Your task to perform on an android device: Play the last video I watched on Youtube Image 0: 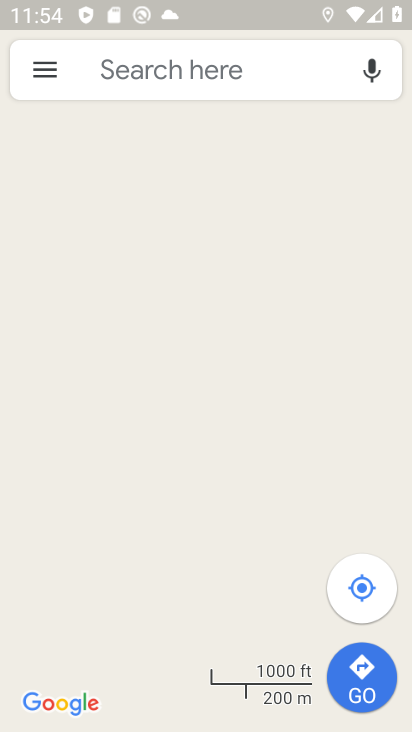
Step 0: press home button
Your task to perform on an android device: Play the last video I watched on Youtube Image 1: 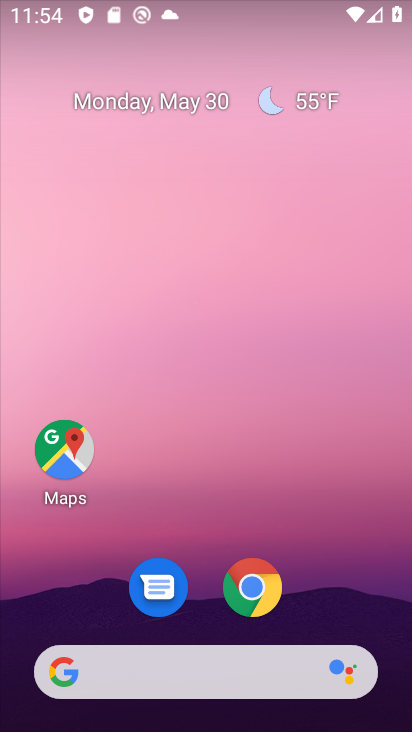
Step 1: drag from (296, 585) to (235, 173)
Your task to perform on an android device: Play the last video I watched on Youtube Image 2: 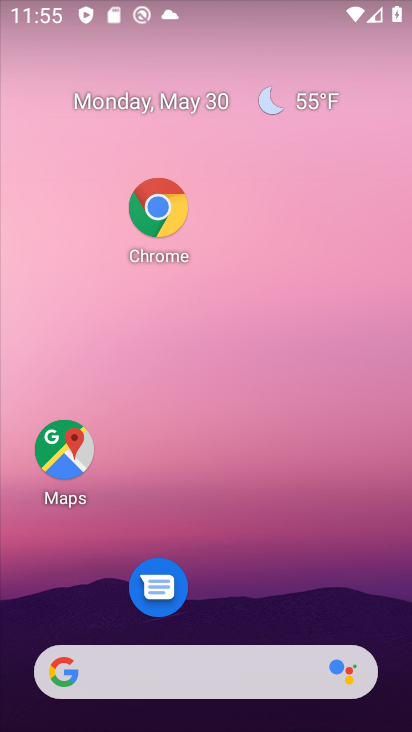
Step 2: drag from (304, 588) to (305, 181)
Your task to perform on an android device: Play the last video I watched on Youtube Image 3: 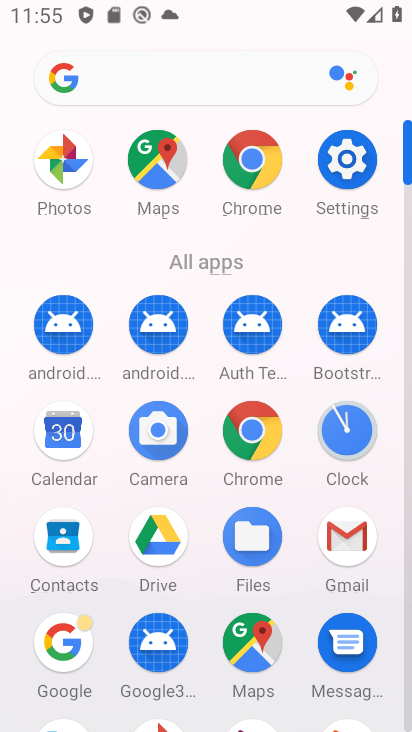
Step 3: click (410, 139)
Your task to perform on an android device: Play the last video I watched on Youtube Image 4: 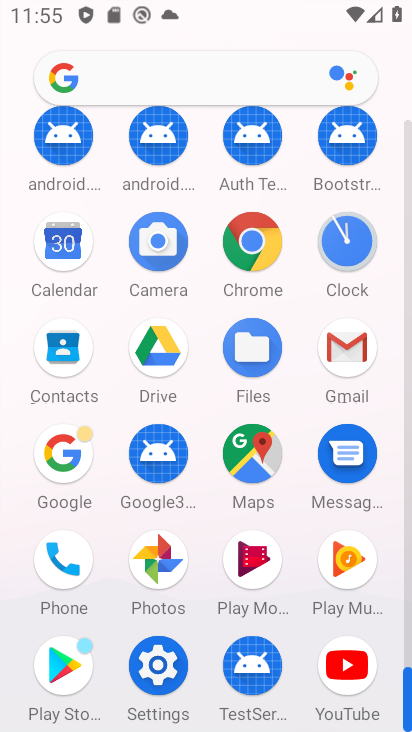
Step 4: click (359, 658)
Your task to perform on an android device: Play the last video I watched on Youtube Image 5: 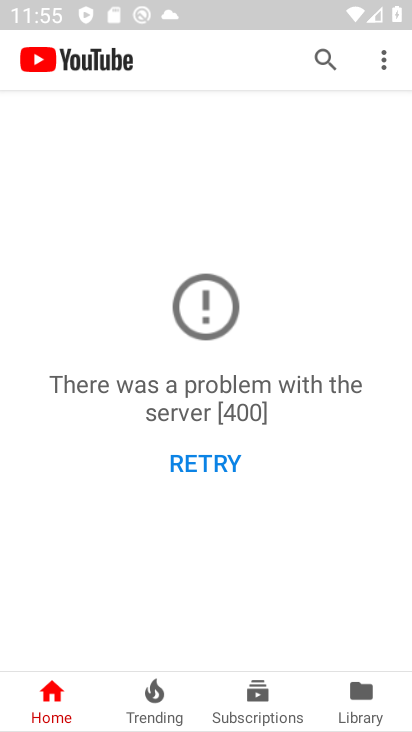
Step 5: click (374, 705)
Your task to perform on an android device: Play the last video I watched on Youtube Image 6: 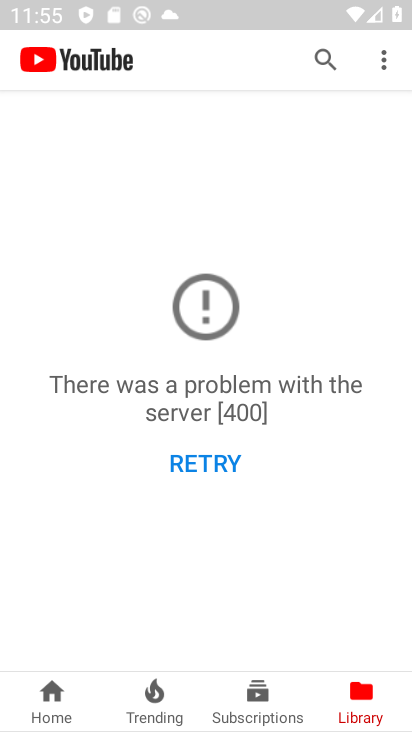
Step 6: click (217, 470)
Your task to perform on an android device: Play the last video I watched on Youtube Image 7: 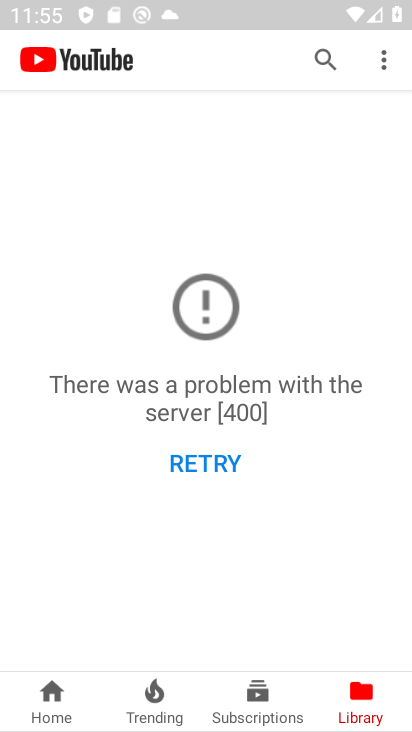
Step 7: click (217, 470)
Your task to perform on an android device: Play the last video I watched on Youtube Image 8: 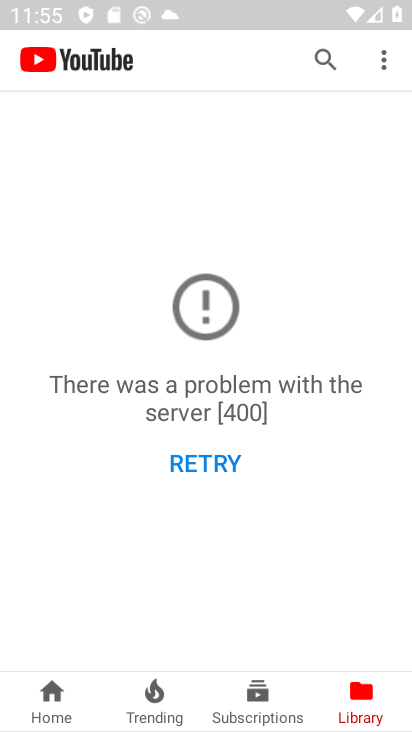
Step 8: click (383, 83)
Your task to perform on an android device: Play the last video I watched on Youtube Image 9: 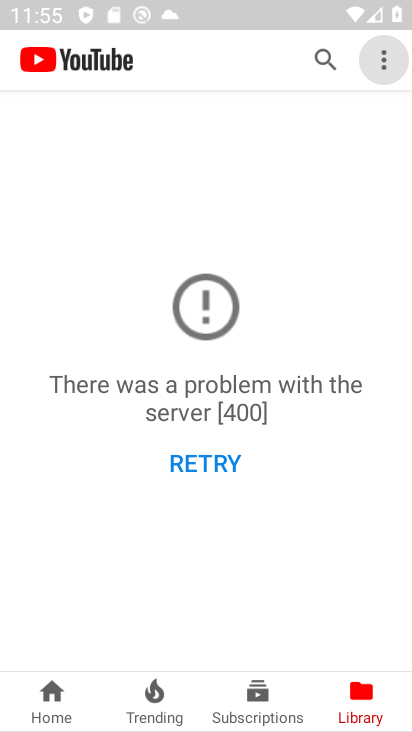
Step 9: click (384, 70)
Your task to perform on an android device: Play the last video I watched on Youtube Image 10: 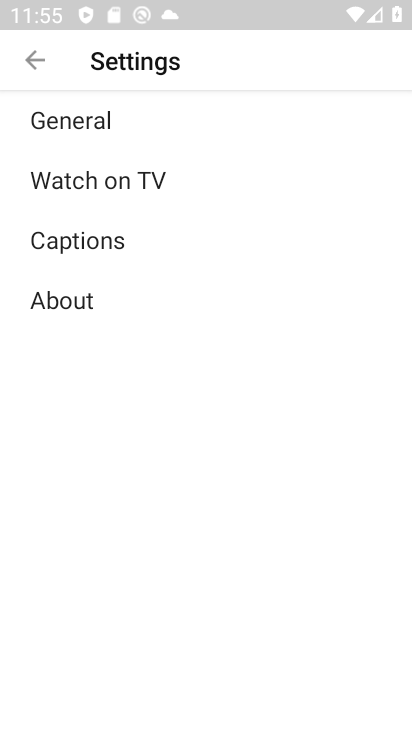
Step 10: press back button
Your task to perform on an android device: Play the last video I watched on Youtube Image 11: 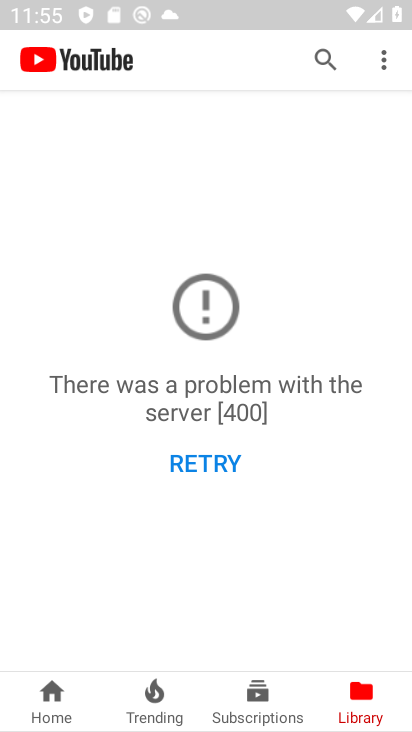
Step 11: click (252, 708)
Your task to perform on an android device: Play the last video I watched on Youtube Image 12: 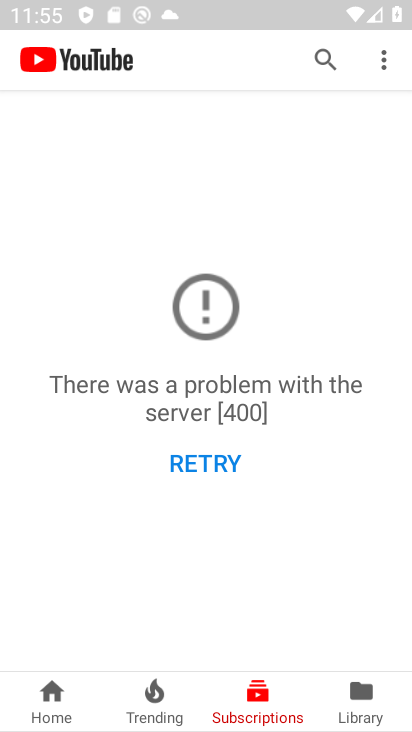
Step 12: click (48, 722)
Your task to perform on an android device: Play the last video I watched on Youtube Image 13: 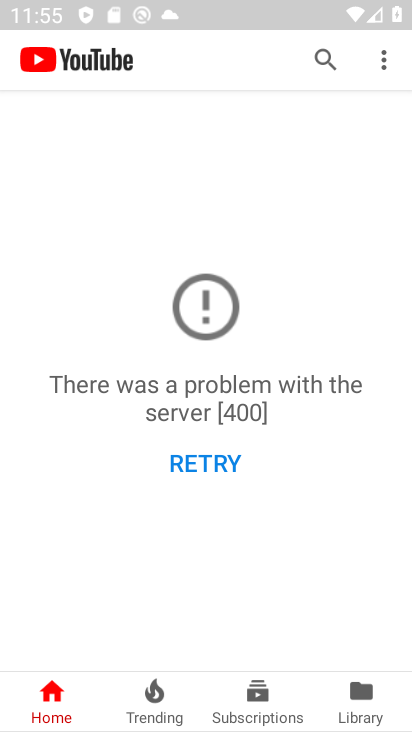
Step 13: task complete